Your task to perform on an android device: open device folders in google photos Image 0: 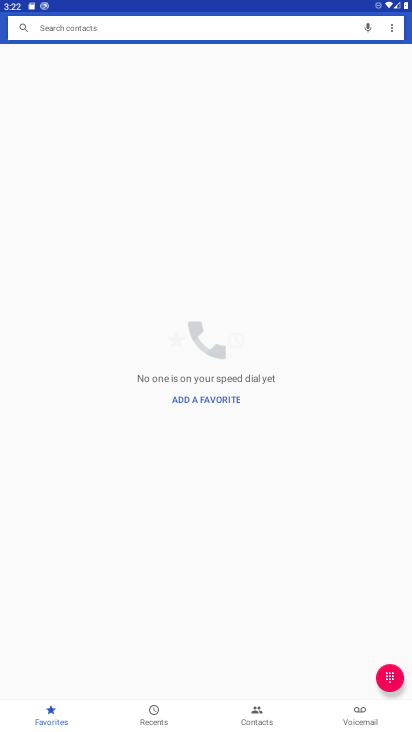
Step 0: press home button
Your task to perform on an android device: open device folders in google photos Image 1: 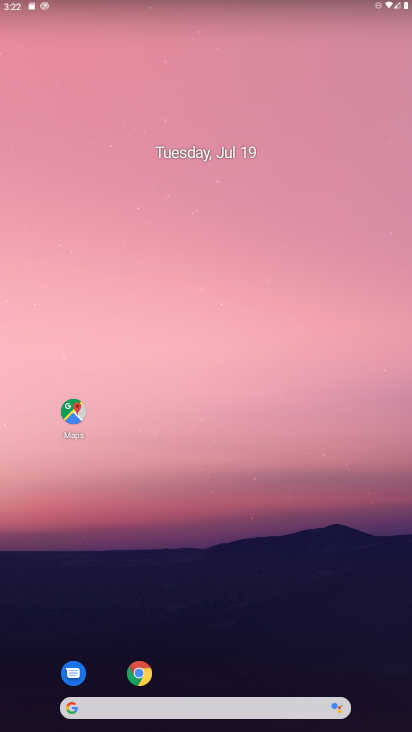
Step 1: drag from (239, 664) to (251, 0)
Your task to perform on an android device: open device folders in google photos Image 2: 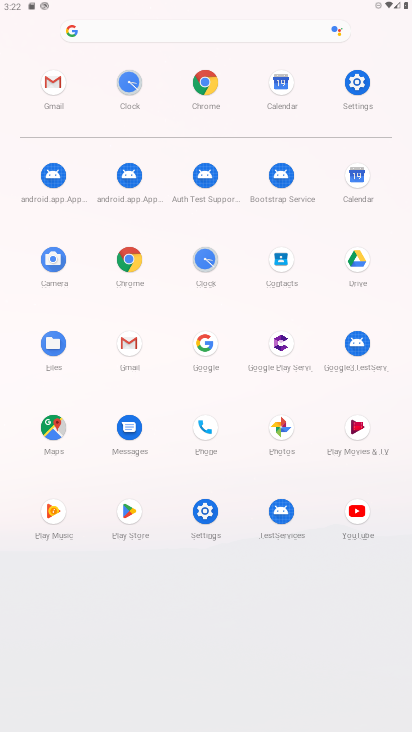
Step 2: click (282, 431)
Your task to perform on an android device: open device folders in google photos Image 3: 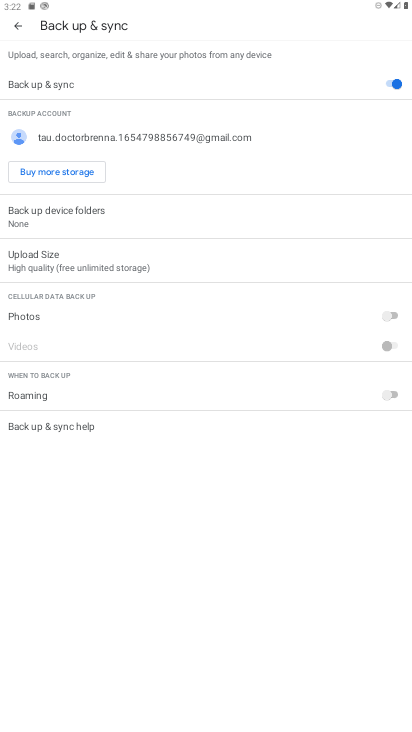
Step 3: click (13, 21)
Your task to perform on an android device: open device folders in google photos Image 4: 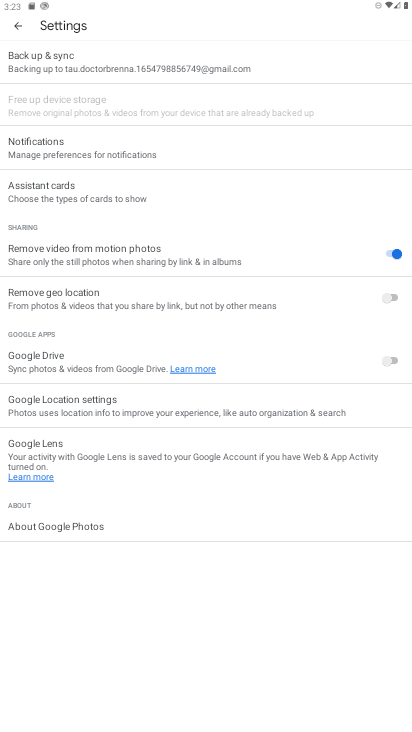
Step 4: click (13, 20)
Your task to perform on an android device: open device folders in google photos Image 5: 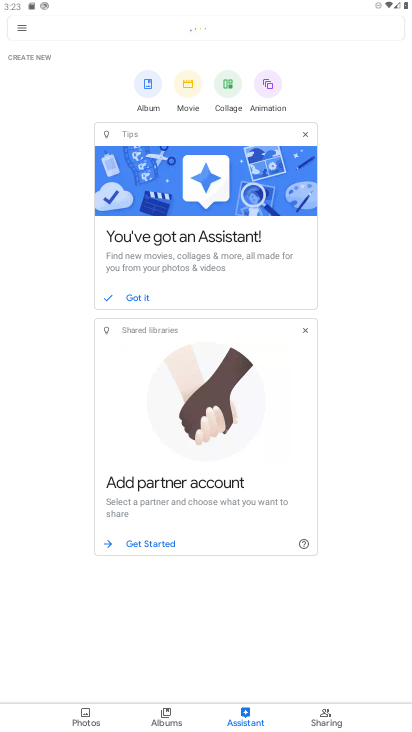
Step 5: click (21, 26)
Your task to perform on an android device: open device folders in google photos Image 6: 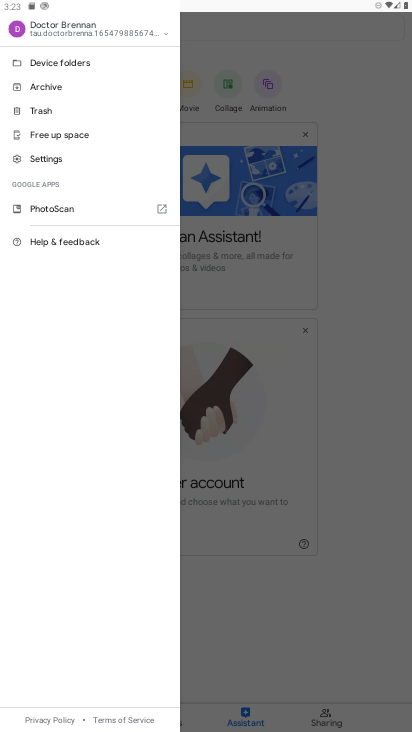
Step 6: click (74, 55)
Your task to perform on an android device: open device folders in google photos Image 7: 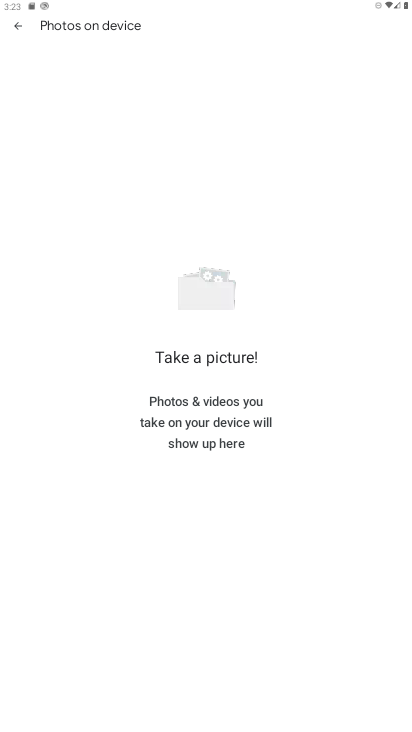
Step 7: task complete